Your task to perform on an android device: Open sound settings Image 0: 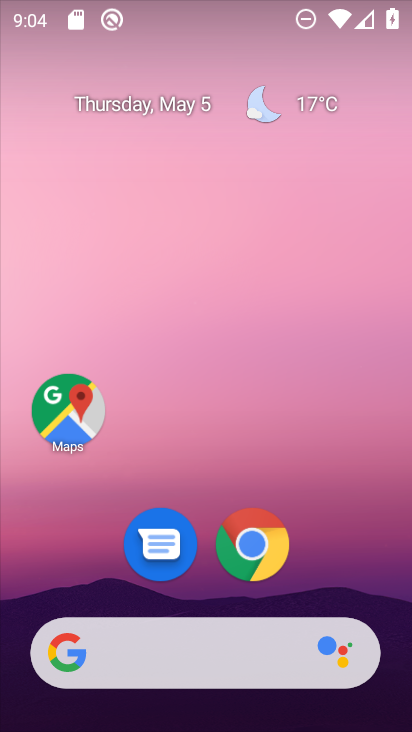
Step 0: drag from (399, 678) to (265, 101)
Your task to perform on an android device: Open sound settings Image 1: 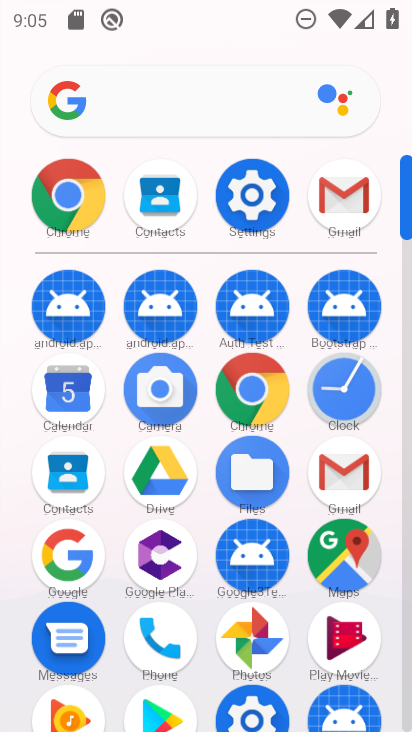
Step 1: click (264, 188)
Your task to perform on an android device: Open sound settings Image 2: 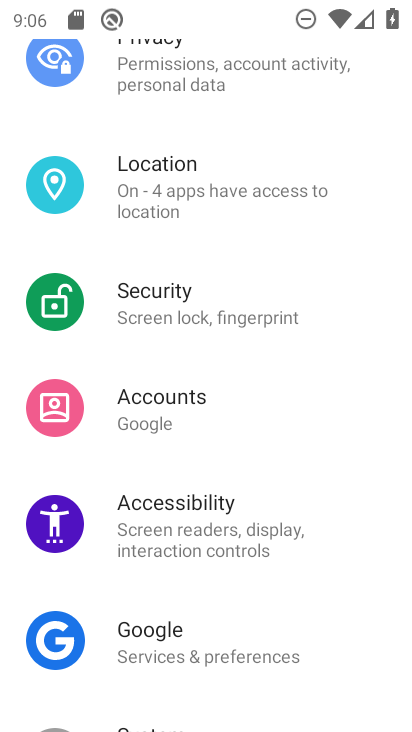
Step 2: drag from (79, 562) to (228, 135)
Your task to perform on an android device: Open sound settings Image 3: 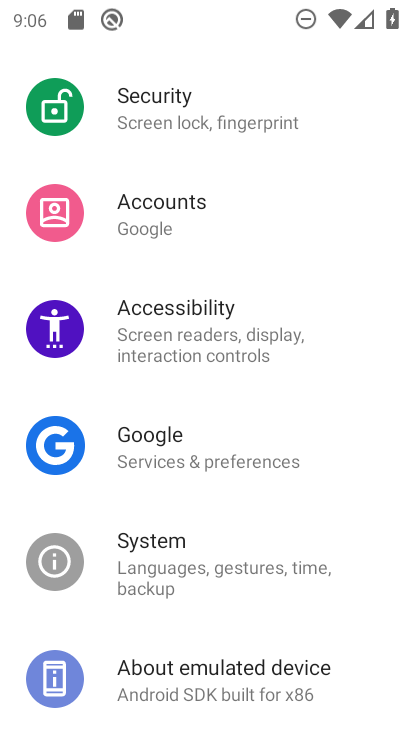
Step 3: drag from (230, 177) to (291, 704)
Your task to perform on an android device: Open sound settings Image 4: 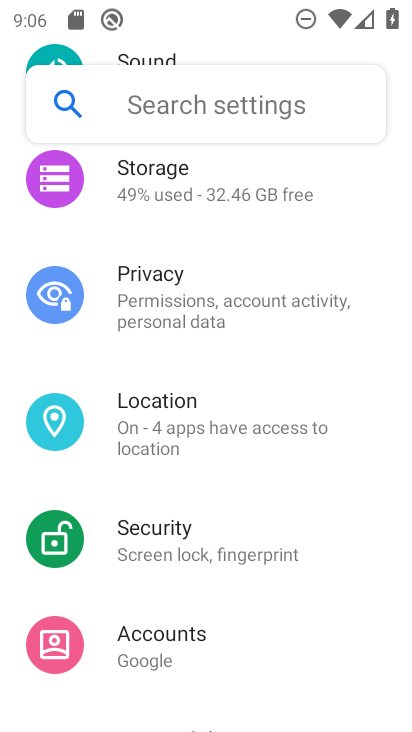
Step 4: drag from (198, 216) to (267, 669)
Your task to perform on an android device: Open sound settings Image 5: 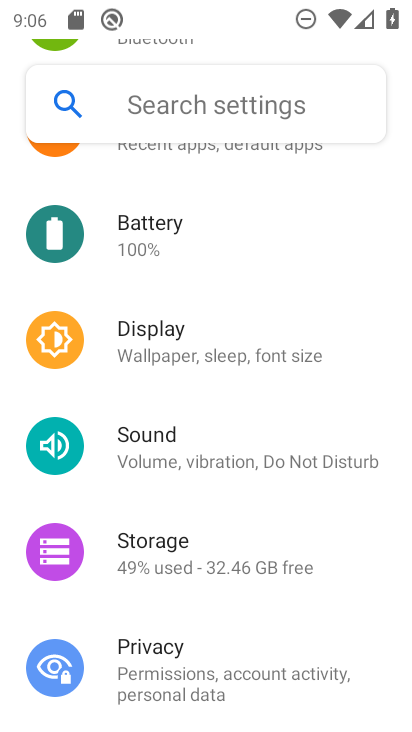
Step 5: click (185, 456)
Your task to perform on an android device: Open sound settings Image 6: 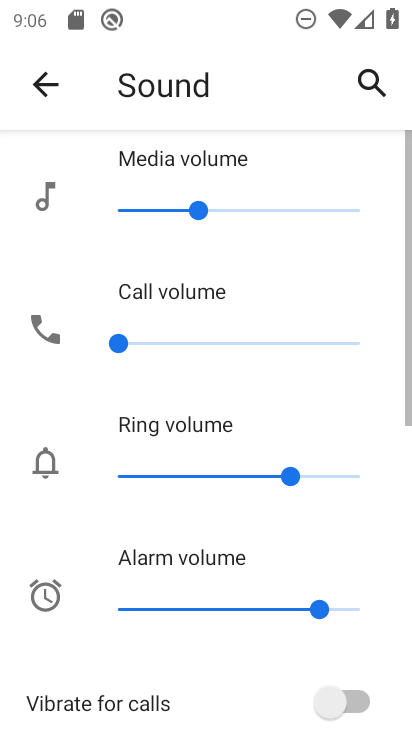
Step 6: task complete